Your task to perform on an android device: Open Maps and search for coffee Image 0: 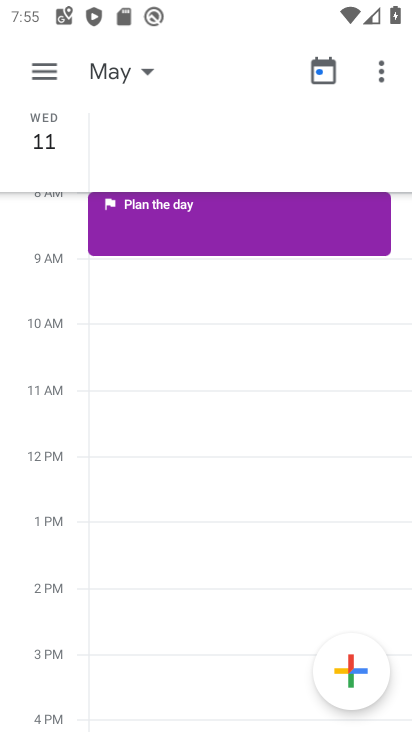
Step 0: press home button
Your task to perform on an android device: Open Maps and search for coffee Image 1: 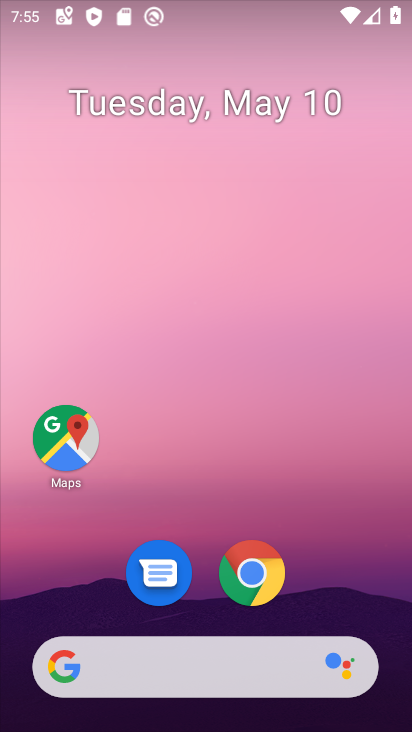
Step 1: drag from (363, 586) to (335, 198)
Your task to perform on an android device: Open Maps and search for coffee Image 2: 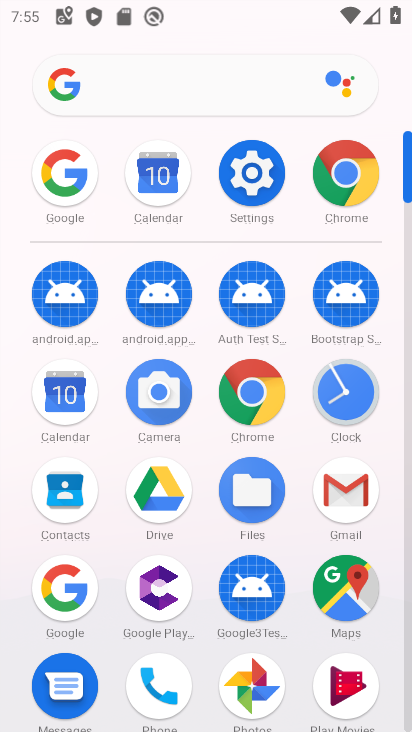
Step 2: click (356, 593)
Your task to perform on an android device: Open Maps and search for coffee Image 3: 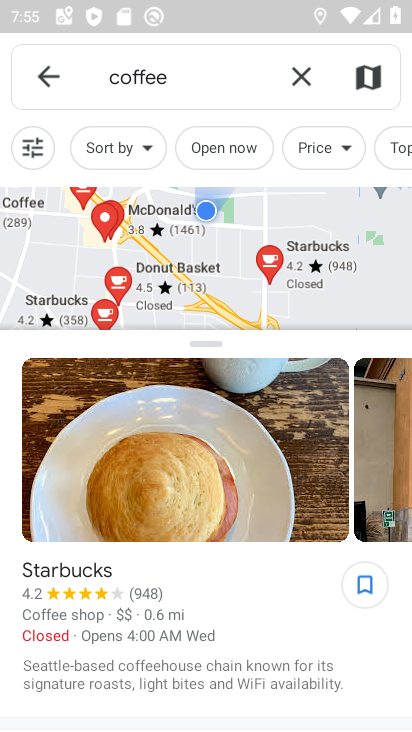
Step 3: task complete